Your task to perform on an android device: turn notification dots on Image 0: 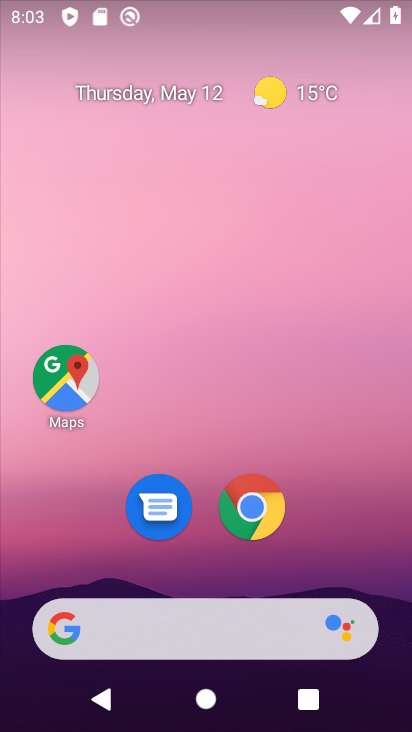
Step 0: drag from (335, 572) to (368, 122)
Your task to perform on an android device: turn notification dots on Image 1: 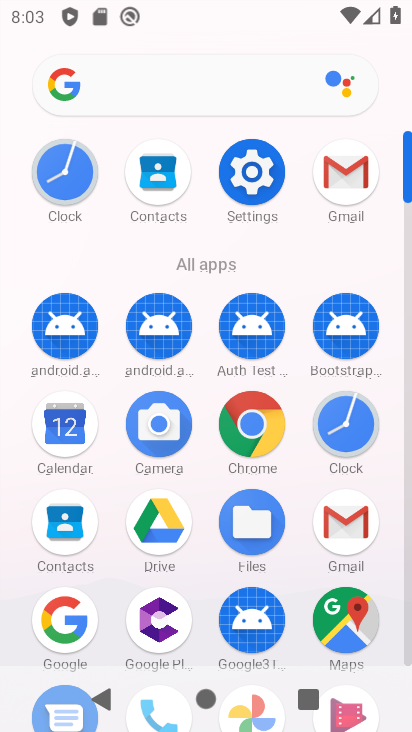
Step 1: click (255, 161)
Your task to perform on an android device: turn notification dots on Image 2: 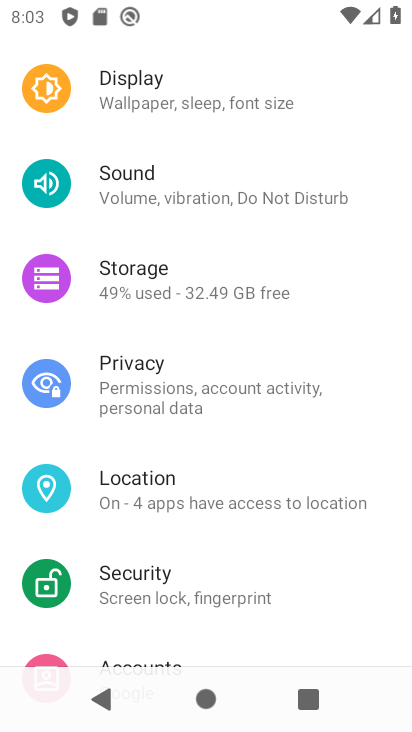
Step 2: drag from (175, 352) to (200, 551)
Your task to perform on an android device: turn notification dots on Image 3: 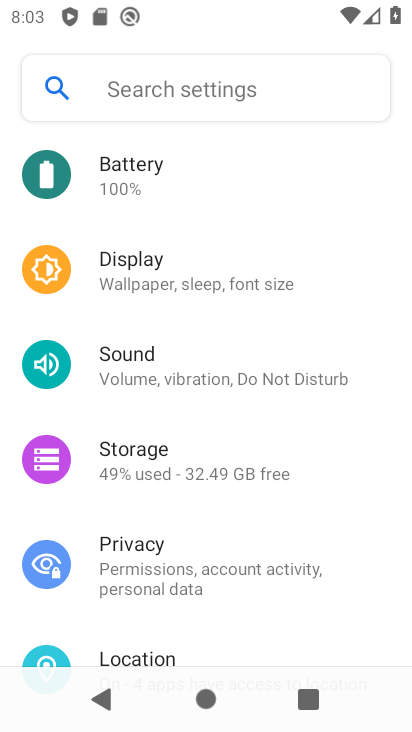
Step 3: drag from (233, 302) to (255, 506)
Your task to perform on an android device: turn notification dots on Image 4: 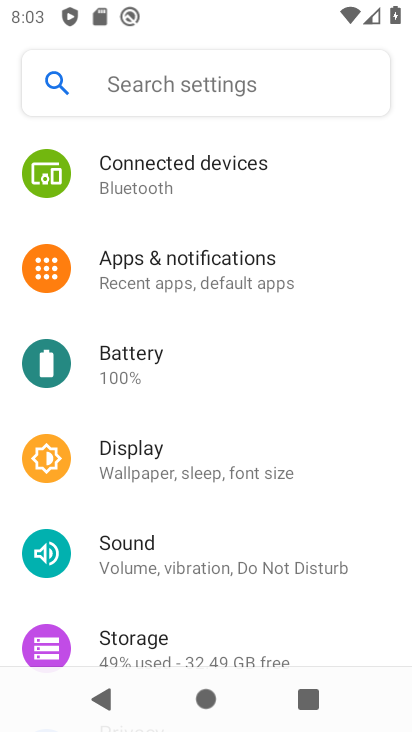
Step 4: click (238, 282)
Your task to perform on an android device: turn notification dots on Image 5: 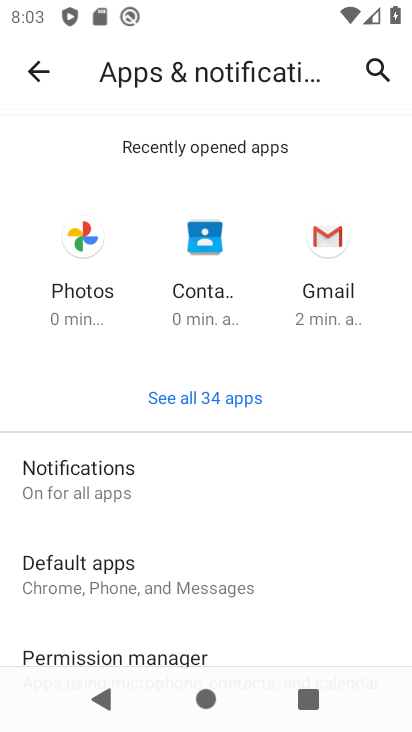
Step 5: click (187, 481)
Your task to perform on an android device: turn notification dots on Image 6: 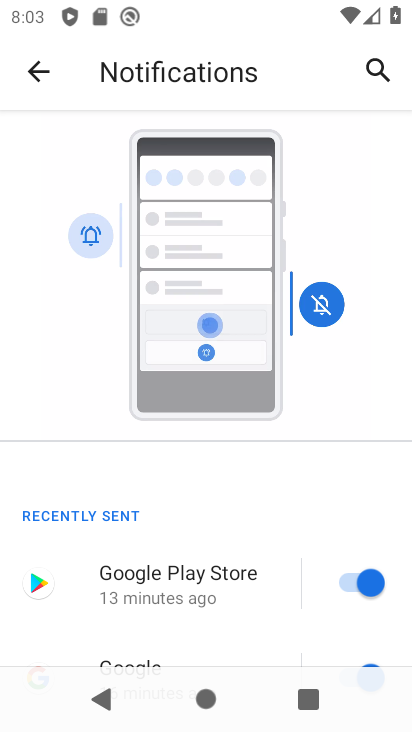
Step 6: drag from (170, 582) to (176, 353)
Your task to perform on an android device: turn notification dots on Image 7: 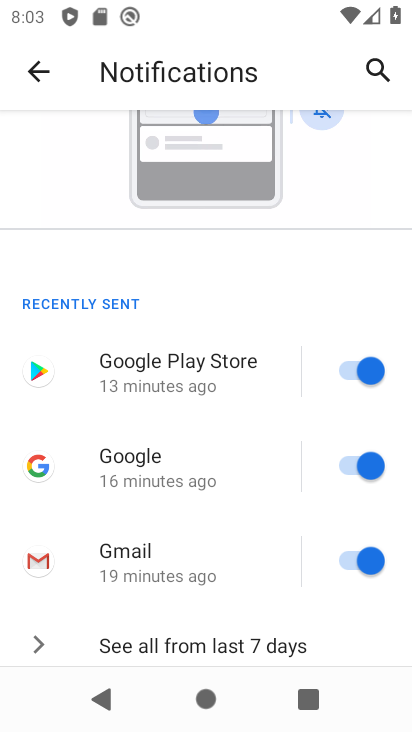
Step 7: drag from (196, 556) to (209, 261)
Your task to perform on an android device: turn notification dots on Image 8: 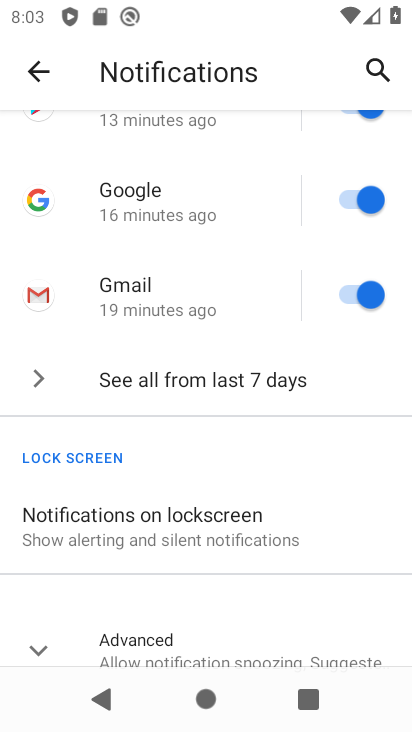
Step 8: click (134, 652)
Your task to perform on an android device: turn notification dots on Image 9: 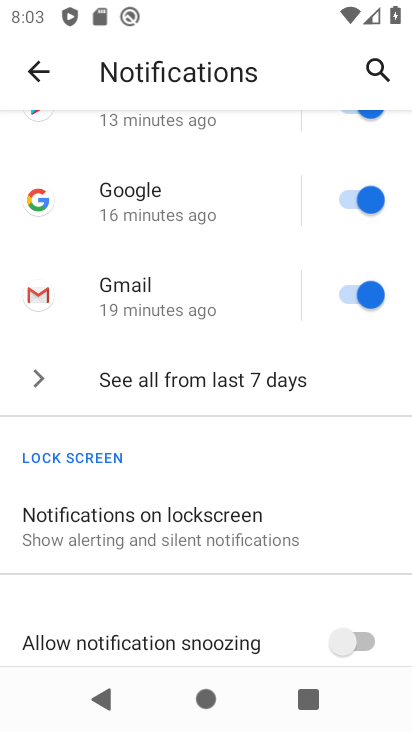
Step 9: task complete